Your task to perform on an android device: turn off improve location accuracy Image 0: 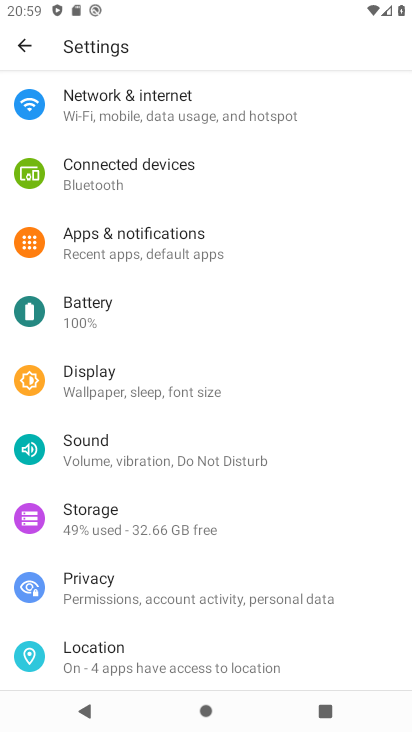
Step 0: click (120, 654)
Your task to perform on an android device: turn off improve location accuracy Image 1: 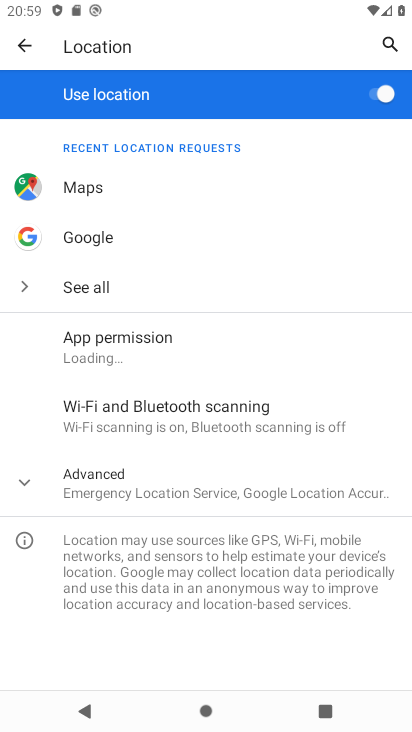
Step 1: click (116, 480)
Your task to perform on an android device: turn off improve location accuracy Image 2: 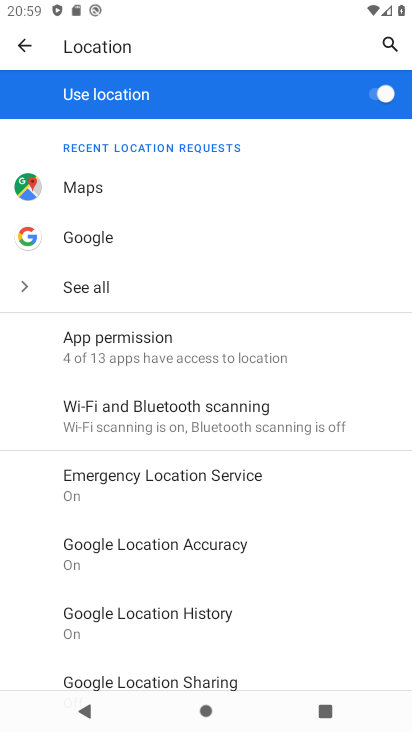
Step 2: click (174, 544)
Your task to perform on an android device: turn off improve location accuracy Image 3: 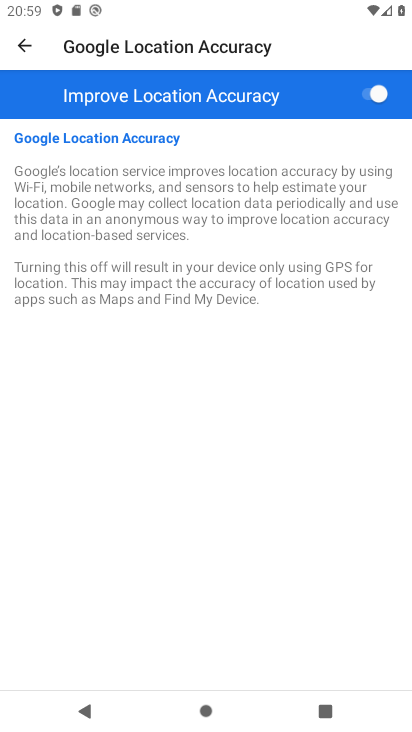
Step 3: click (366, 93)
Your task to perform on an android device: turn off improve location accuracy Image 4: 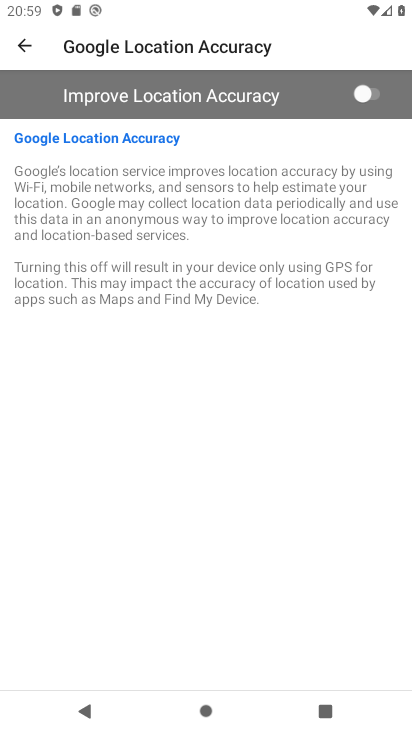
Step 4: task complete